Your task to perform on an android device: Add macbook pro 15 inch to the cart on target Image 0: 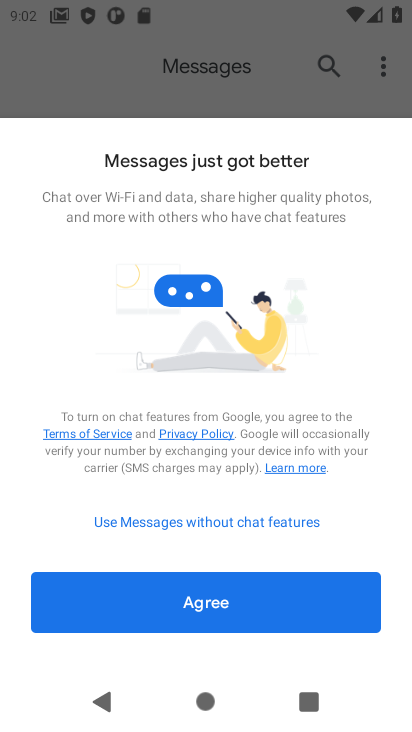
Step 0: press home button
Your task to perform on an android device: Add macbook pro 15 inch to the cart on target Image 1: 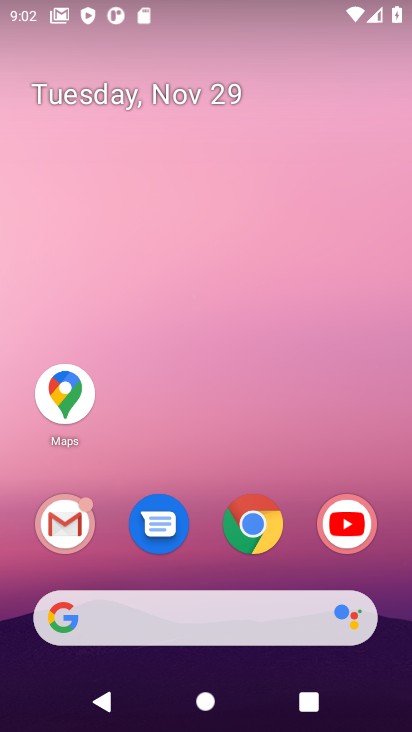
Step 1: click (248, 527)
Your task to perform on an android device: Add macbook pro 15 inch to the cart on target Image 2: 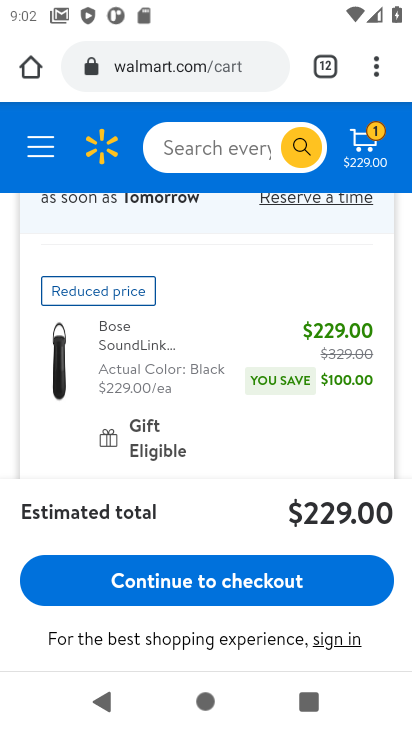
Step 2: click (173, 72)
Your task to perform on an android device: Add macbook pro 15 inch to the cart on target Image 3: 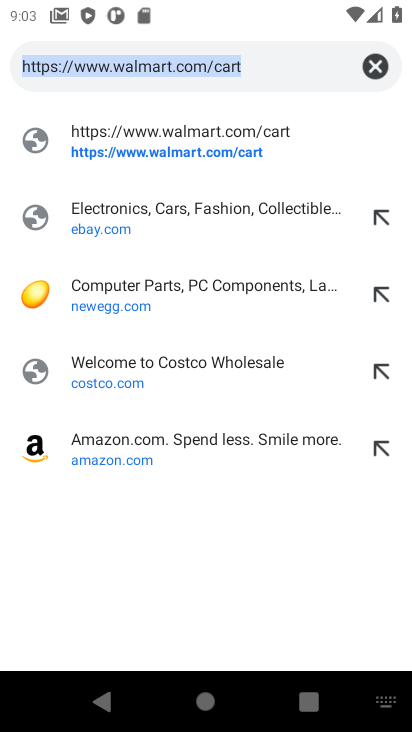
Step 3: type "target.com"
Your task to perform on an android device: Add macbook pro 15 inch to the cart on target Image 4: 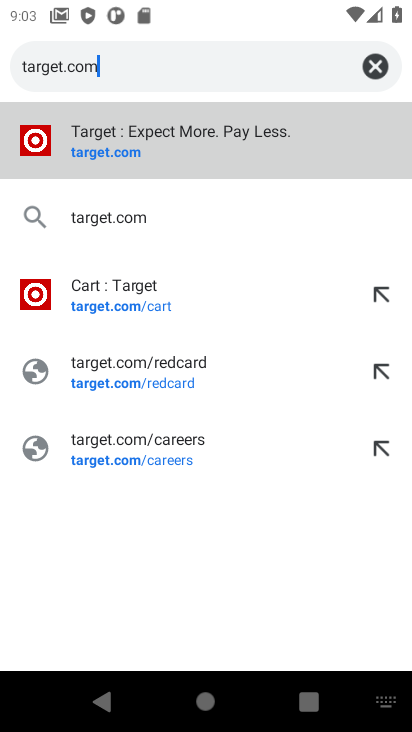
Step 4: click (70, 142)
Your task to perform on an android device: Add macbook pro 15 inch to the cart on target Image 5: 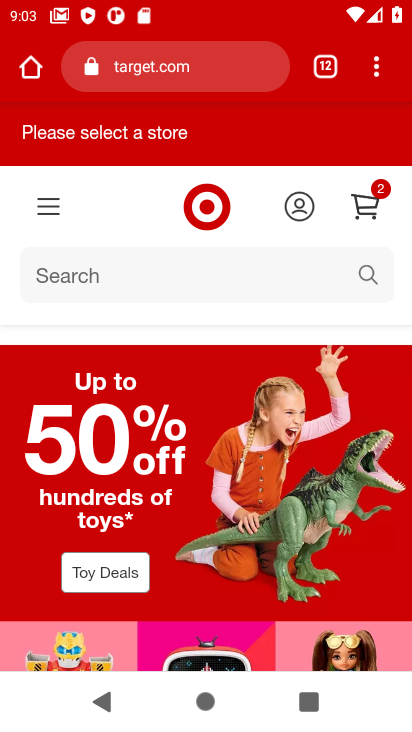
Step 5: click (57, 265)
Your task to perform on an android device: Add macbook pro 15 inch to the cart on target Image 6: 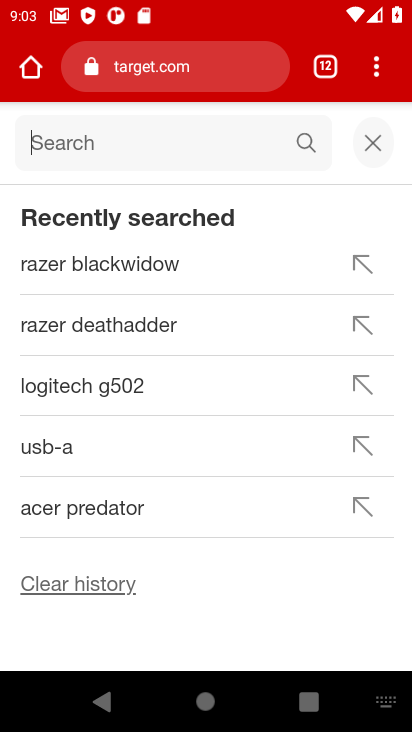
Step 6: type "macbook pro 15 inch"
Your task to perform on an android device: Add macbook pro 15 inch to the cart on target Image 7: 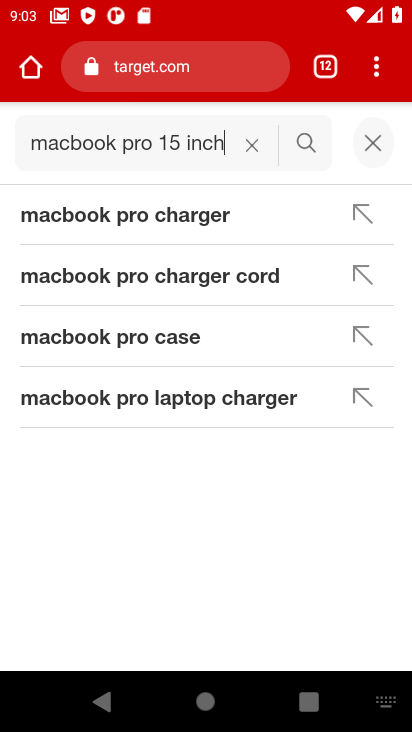
Step 7: click (302, 143)
Your task to perform on an android device: Add macbook pro 15 inch to the cart on target Image 8: 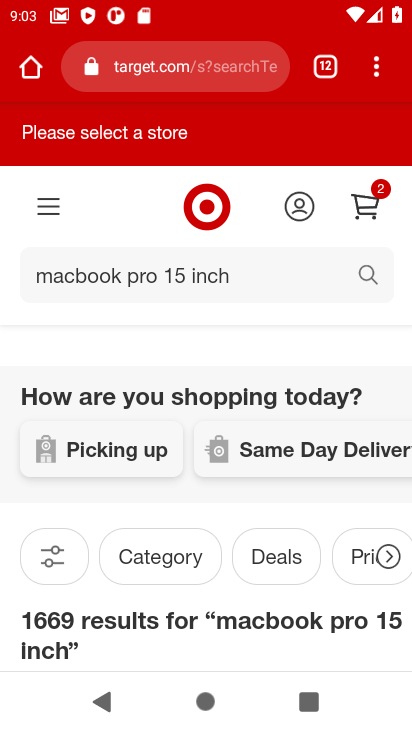
Step 8: task complete